Your task to perform on an android device: Open Android settings Image 0: 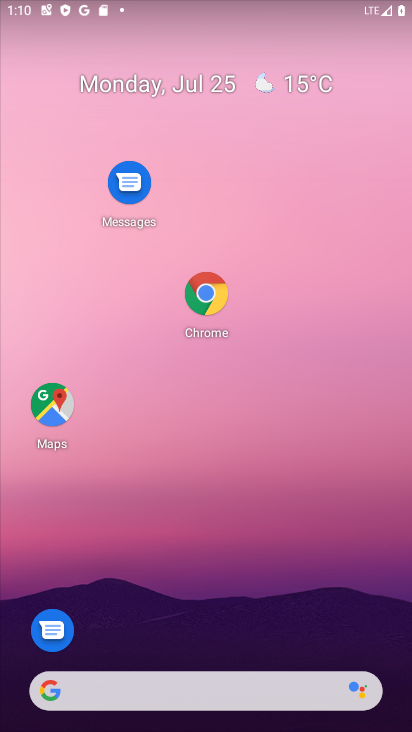
Step 0: press home button
Your task to perform on an android device: Open Android settings Image 1: 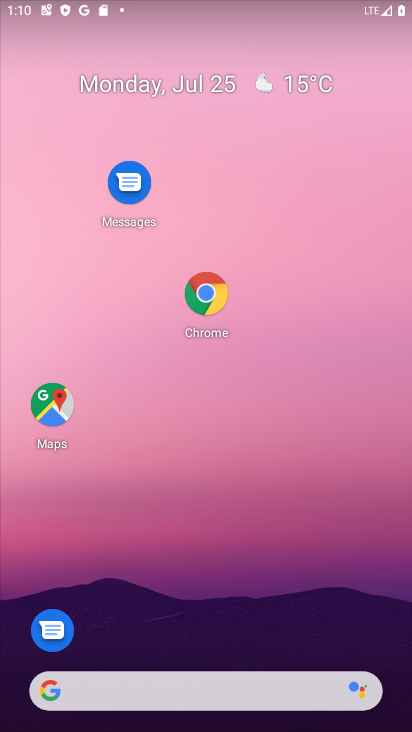
Step 1: drag from (246, 644) to (343, 181)
Your task to perform on an android device: Open Android settings Image 2: 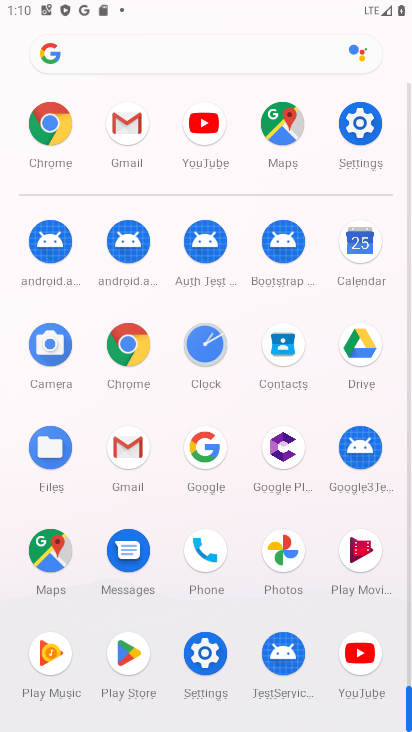
Step 2: click (354, 126)
Your task to perform on an android device: Open Android settings Image 3: 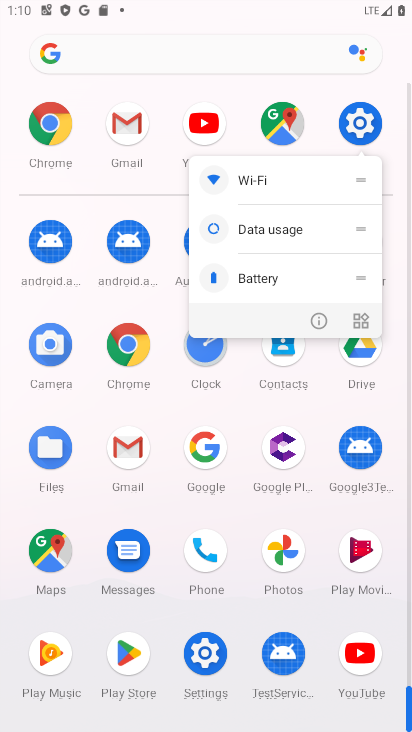
Step 3: click (354, 126)
Your task to perform on an android device: Open Android settings Image 4: 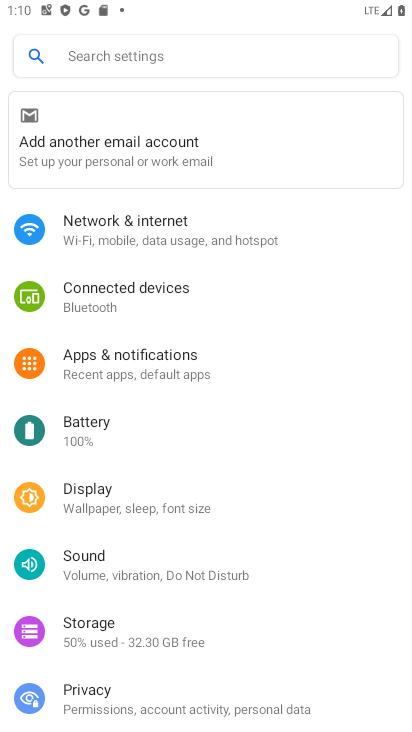
Step 4: drag from (151, 598) to (256, 70)
Your task to perform on an android device: Open Android settings Image 5: 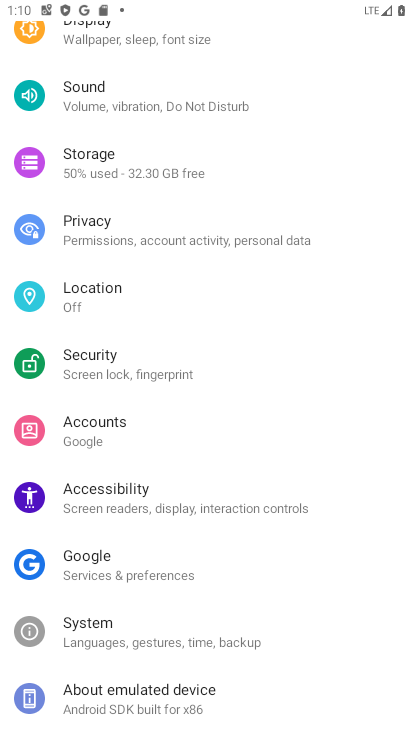
Step 5: click (189, 679)
Your task to perform on an android device: Open Android settings Image 6: 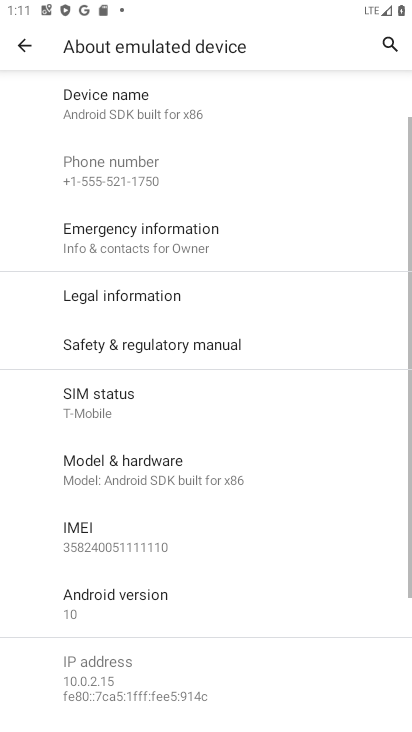
Step 6: click (147, 621)
Your task to perform on an android device: Open Android settings Image 7: 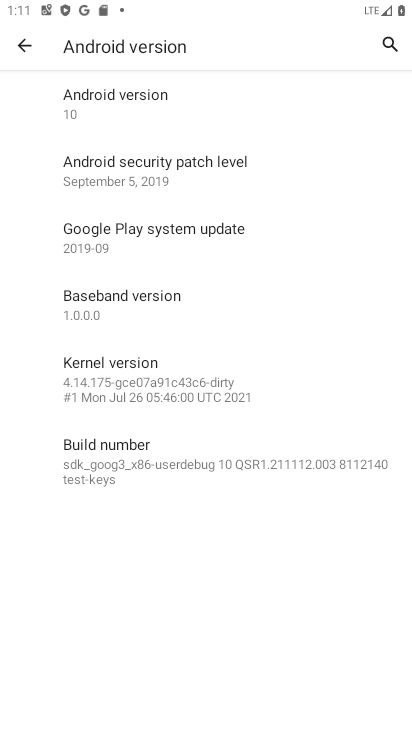
Step 7: task complete